Your task to perform on an android device: Search for bose soundlink on newegg, select the first entry, add it to the cart, then select checkout. Image 0: 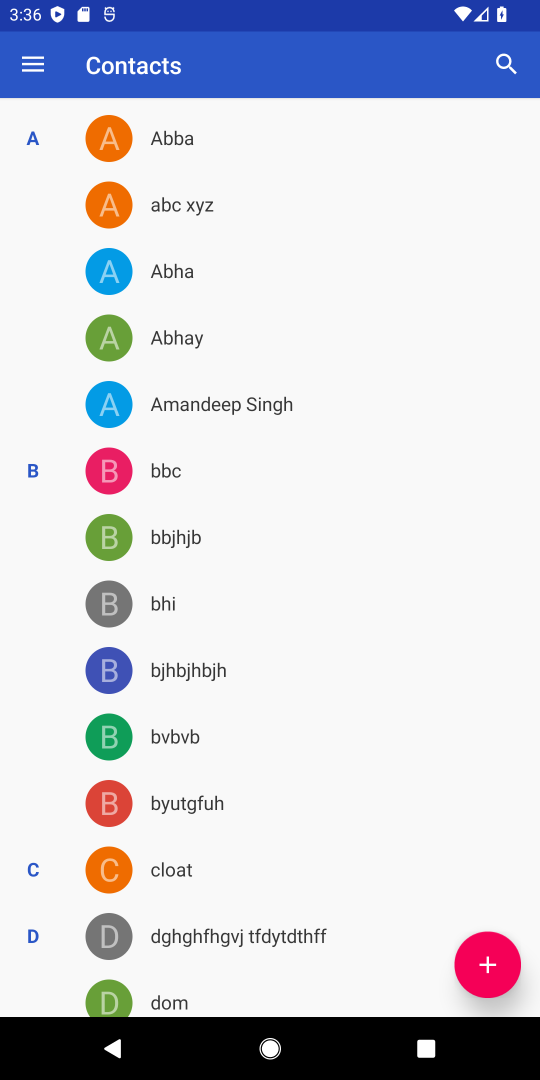
Step 0: press home button
Your task to perform on an android device: Search for bose soundlink on newegg, select the first entry, add it to the cart, then select checkout. Image 1: 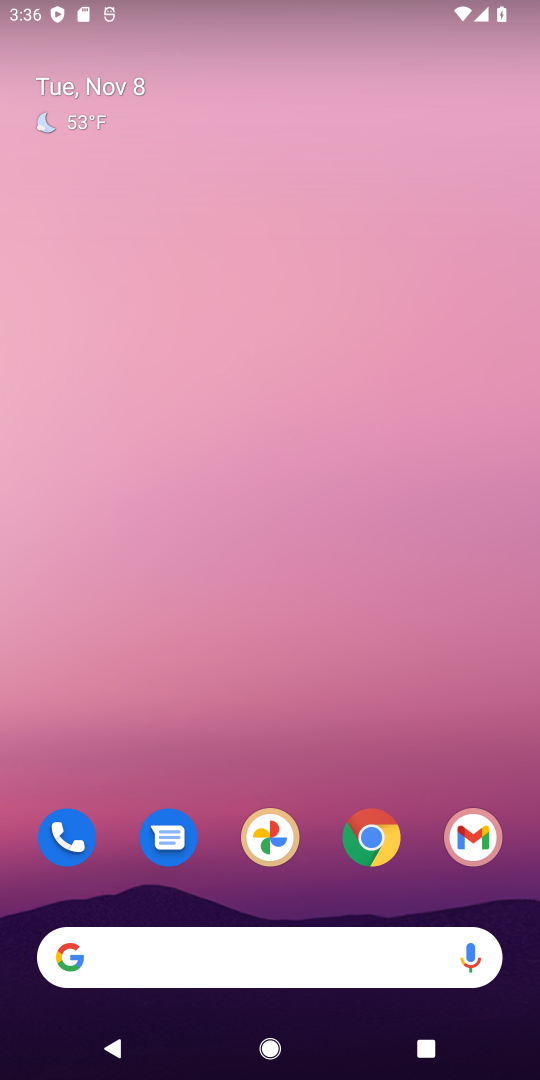
Step 1: click (387, 844)
Your task to perform on an android device: Search for bose soundlink on newegg, select the first entry, add it to the cart, then select checkout. Image 2: 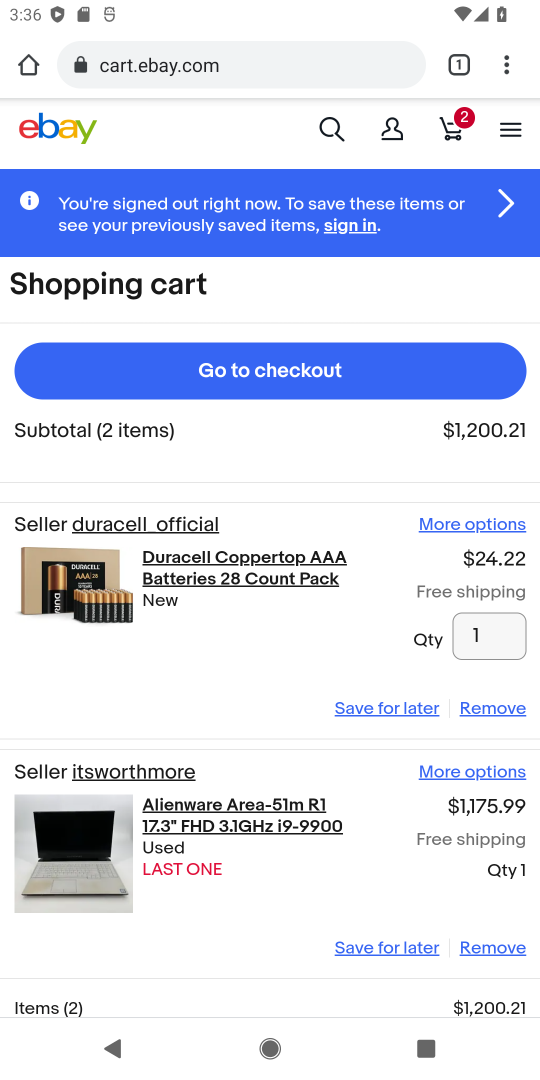
Step 2: click (222, 60)
Your task to perform on an android device: Search for bose soundlink on newegg, select the first entry, add it to the cart, then select checkout. Image 3: 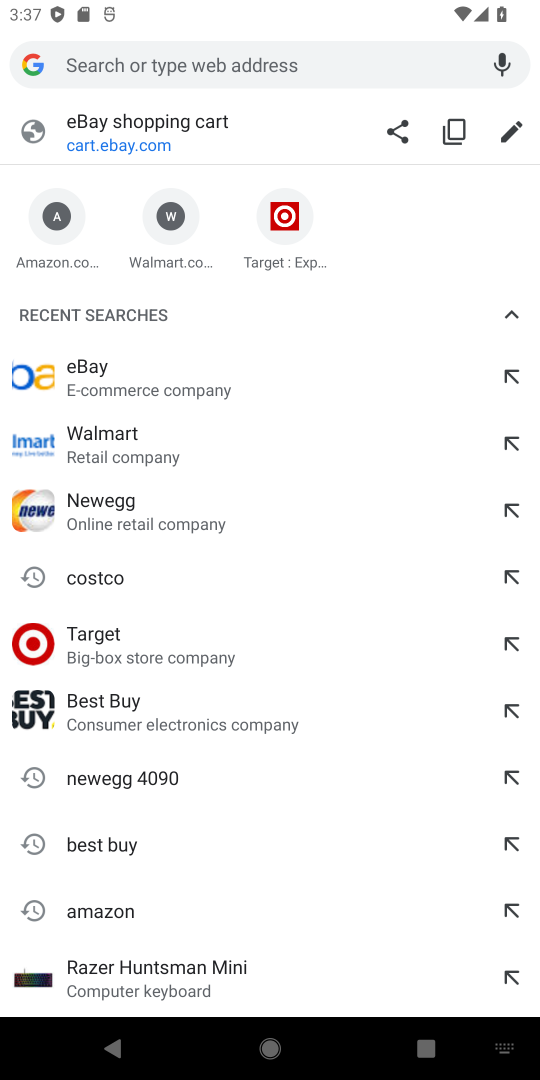
Step 3: click (92, 508)
Your task to perform on an android device: Search for bose soundlink on newegg, select the first entry, add it to the cart, then select checkout. Image 4: 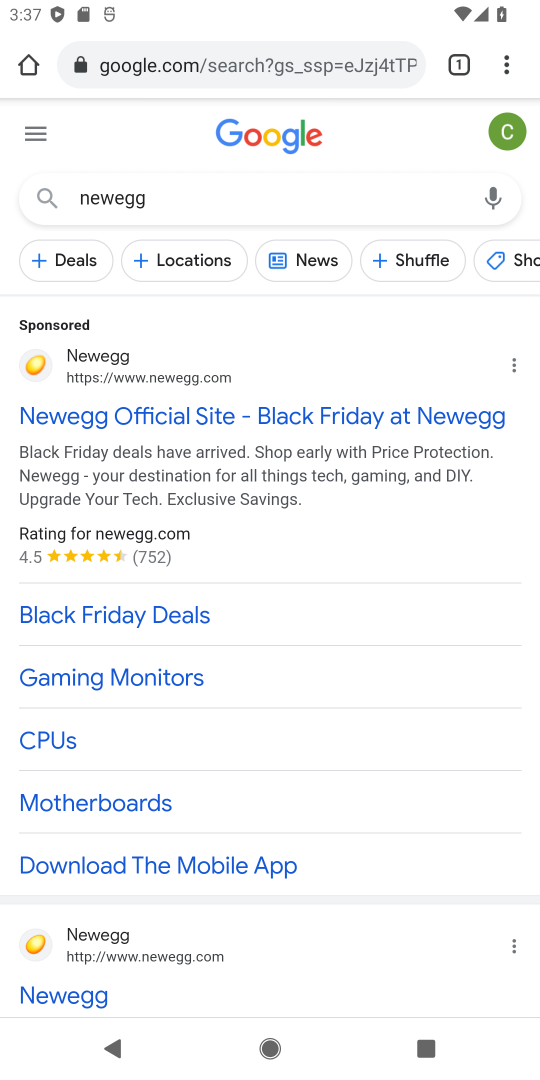
Step 4: drag from (264, 603) to (297, 293)
Your task to perform on an android device: Search for bose soundlink on newegg, select the first entry, add it to the cart, then select checkout. Image 5: 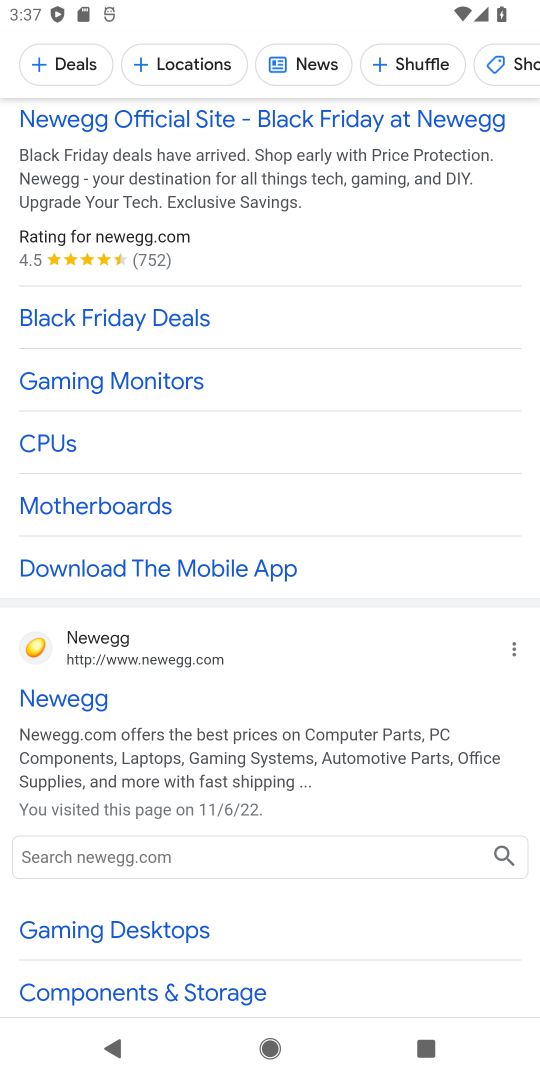
Step 5: click (79, 691)
Your task to perform on an android device: Search for bose soundlink on newegg, select the first entry, add it to the cart, then select checkout. Image 6: 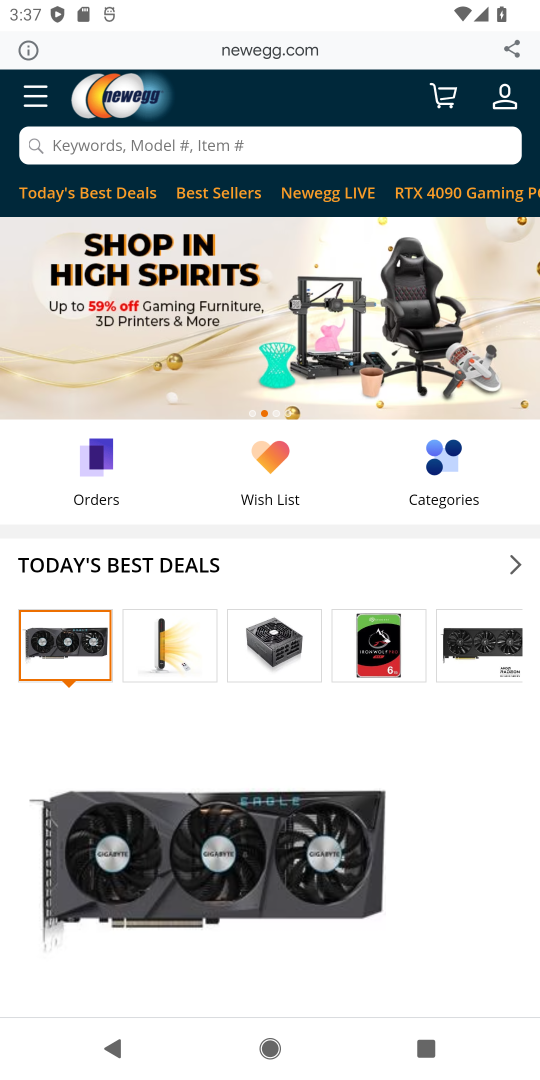
Step 6: click (92, 148)
Your task to perform on an android device: Search for bose soundlink on newegg, select the first entry, add it to the cart, then select checkout. Image 7: 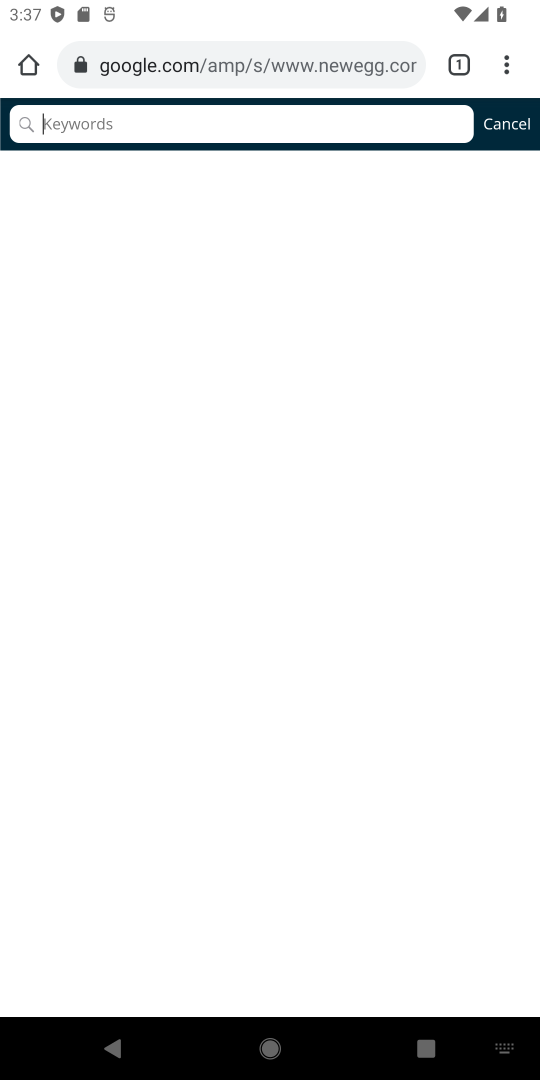
Step 7: type "bose soundlink"
Your task to perform on an android device: Search for bose soundlink on newegg, select the first entry, add it to the cart, then select checkout. Image 8: 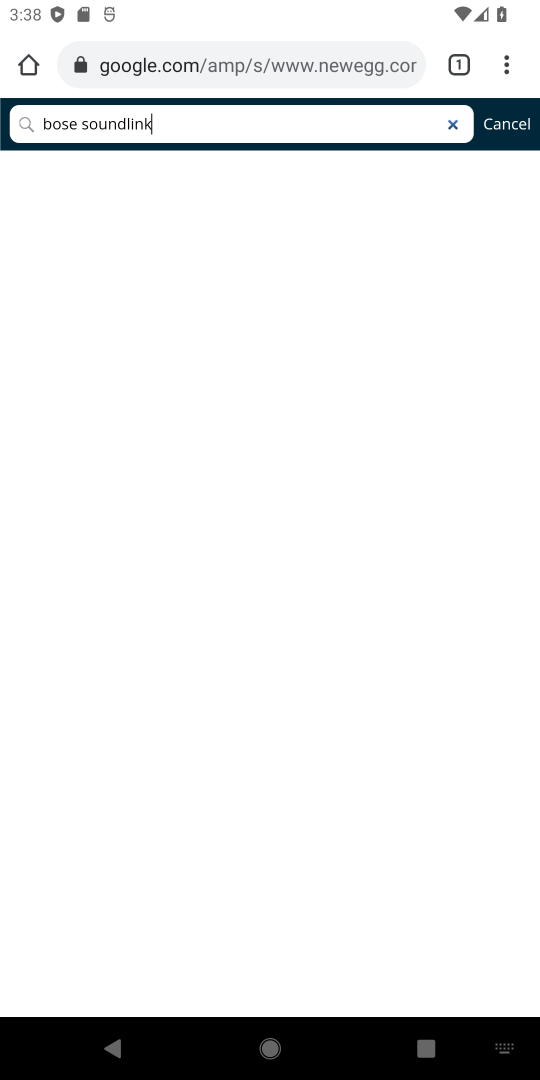
Step 8: click (25, 124)
Your task to perform on an android device: Search for bose soundlink on newegg, select the first entry, add it to the cart, then select checkout. Image 9: 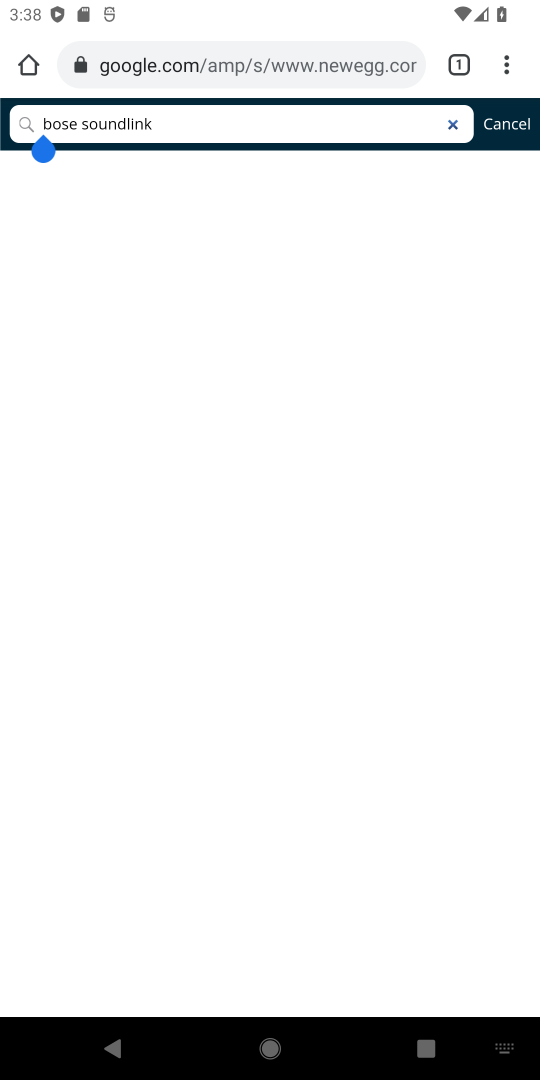
Step 9: click (24, 120)
Your task to perform on an android device: Search for bose soundlink on newegg, select the first entry, add it to the cart, then select checkout. Image 10: 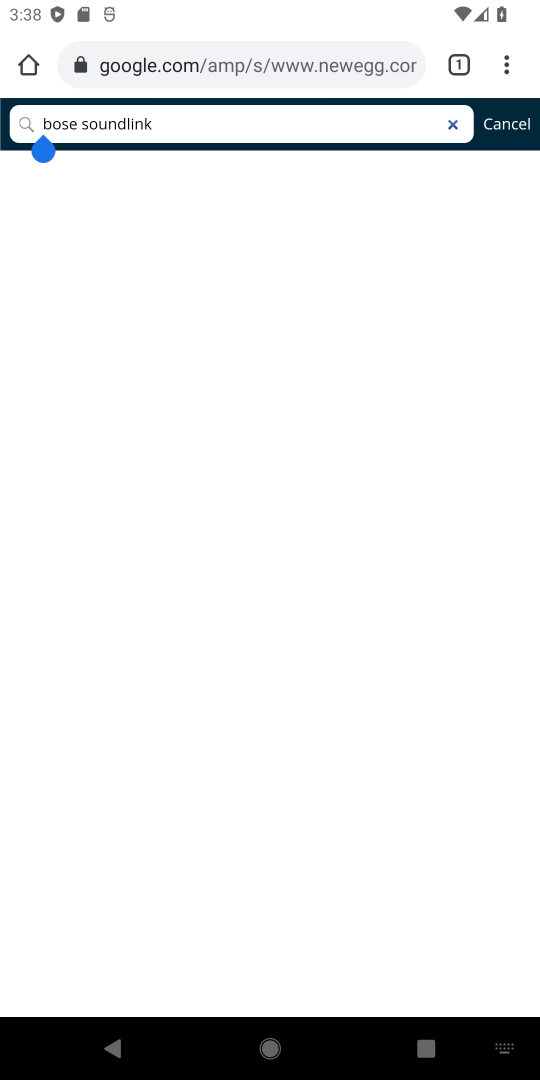
Step 10: type ""
Your task to perform on an android device: Search for bose soundlink on newegg, select the first entry, add it to the cart, then select checkout. Image 11: 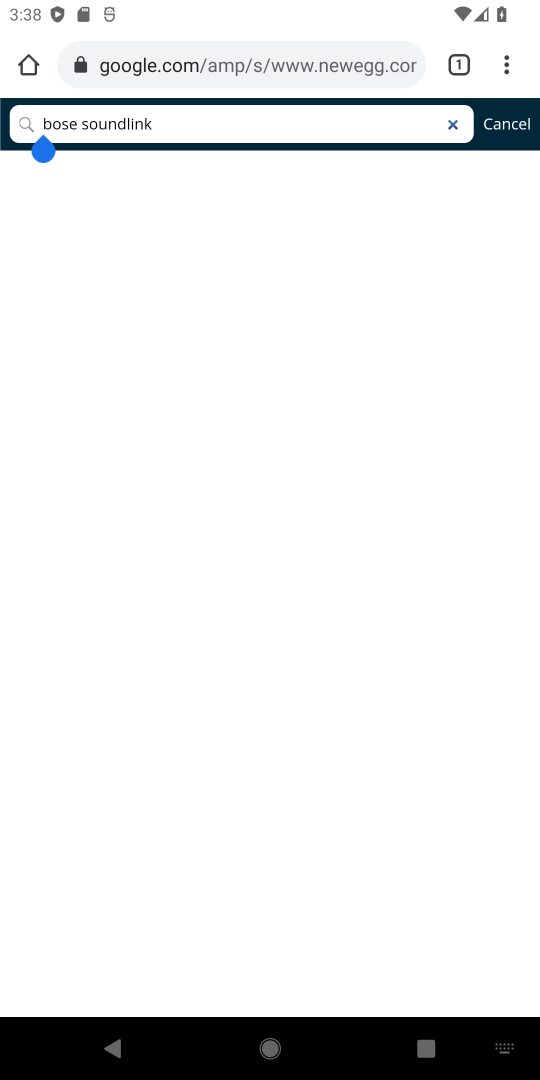
Step 11: task complete